Your task to perform on an android device: Go to CNN.com Image 0: 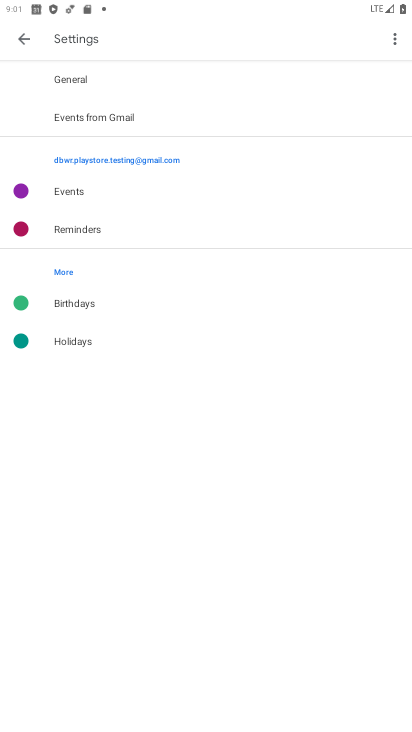
Step 0: press home button
Your task to perform on an android device: Go to CNN.com Image 1: 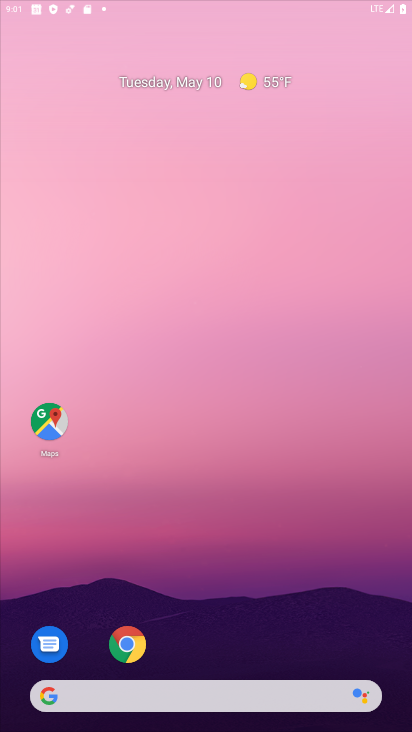
Step 1: drag from (208, 580) to (152, 137)
Your task to perform on an android device: Go to CNN.com Image 2: 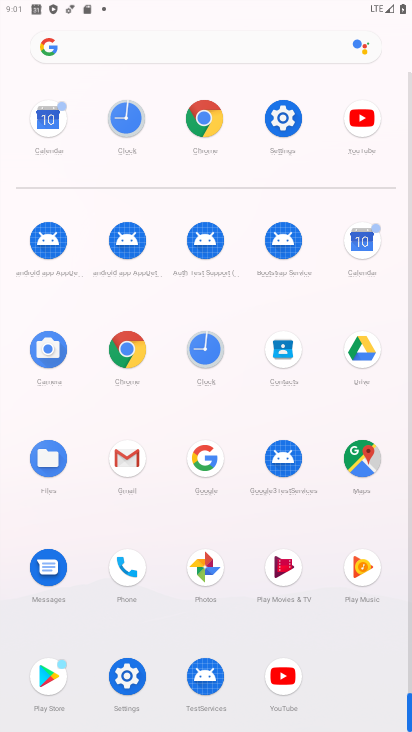
Step 2: click (219, 135)
Your task to perform on an android device: Go to CNN.com Image 3: 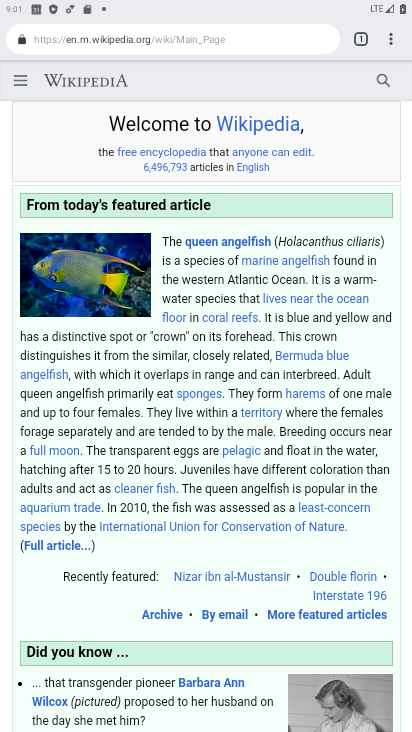
Step 3: drag from (209, 233) to (175, 532)
Your task to perform on an android device: Go to CNN.com Image 4: 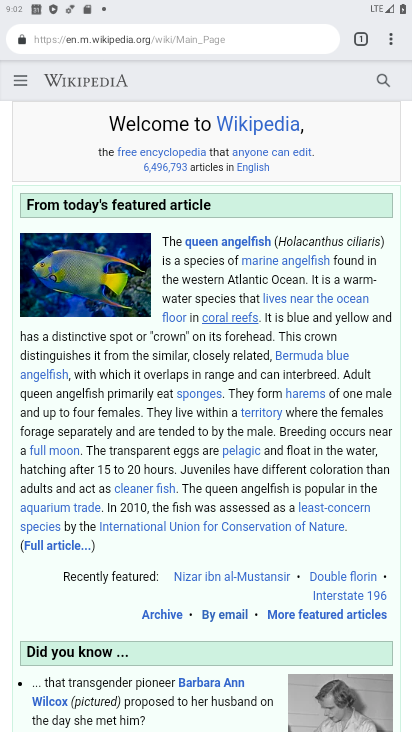
Step 4: click (222, 37)
Your task to perform on an android device: Go to CNN.com Image 5: 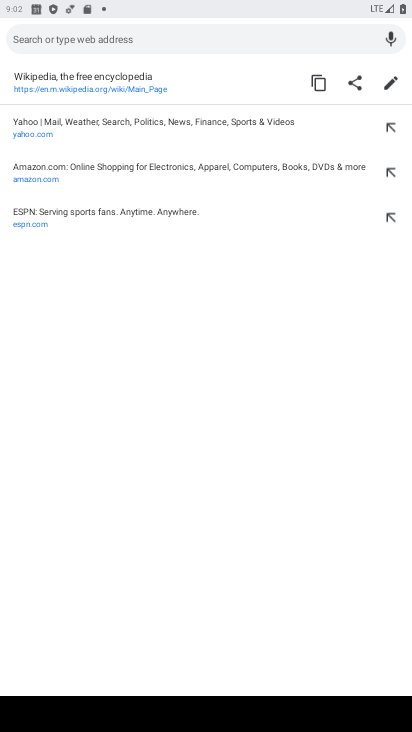
Step 5: type "cnn.com"
Your task to perform on an android device: Go to CNN.com Image 6: 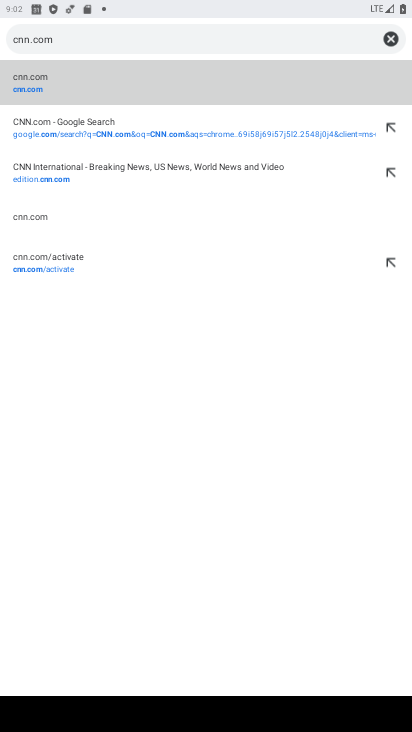
Step 6: click (109, 264)
Your task to perform on an android device: Go to CNN.com Image 7: 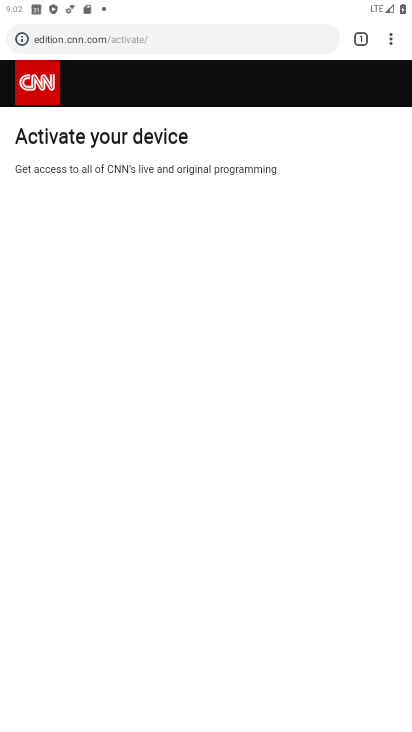
Step 7: task complete